Your task to perform on an android device: turn off notifications settings in the gmail app Image 0: 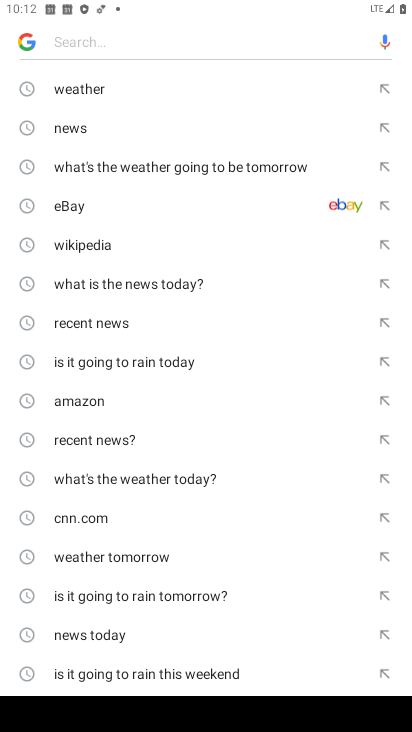
Step 0: drag from (223, 582) to (283, 69)
Your task to perform on an android device: turn off notifications settings in the gmail app Image 1: 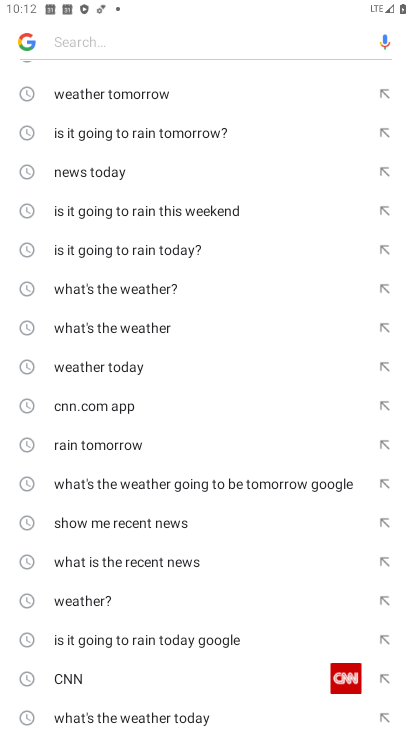
Step 1: drag from (275, 634) to (298, 238)
Your task to perform on an android device: turn off notifications settings in the gmail app Image 2: 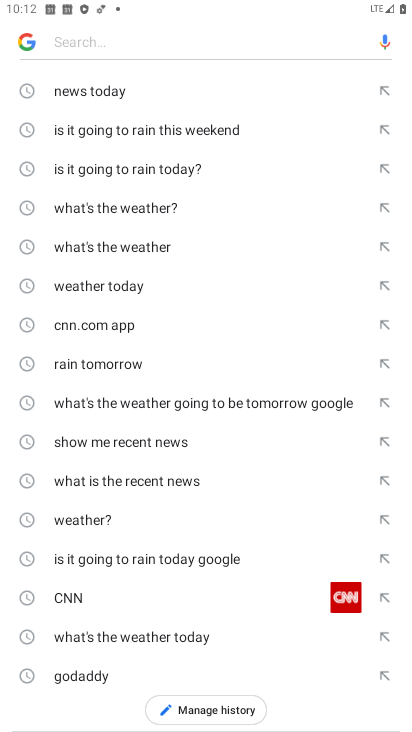
Step 2: press home button
Your task to perform on an android device: turn off notifications settings in the gmail app Image 3: 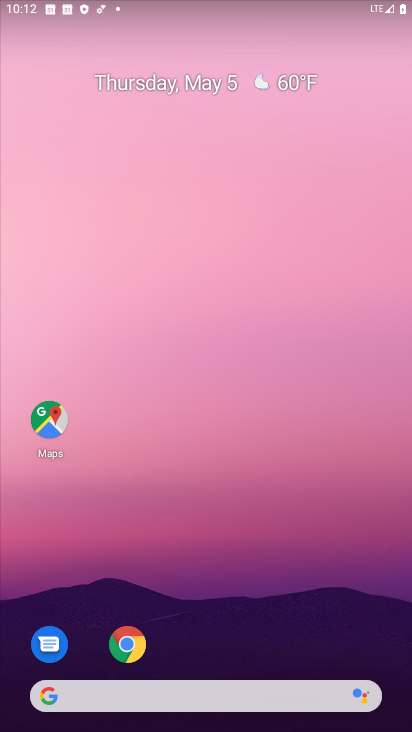
Step 3: drag from (311, 600) to (395, 27)
Your task to perform on an android device: turn off notifications settings in the gmail app Image 4: 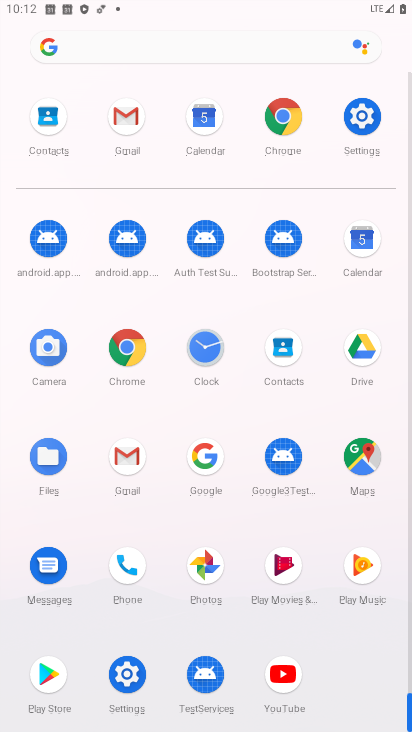
Step 4: click (111, 453)
Your task to perform on an android device: turn off notifications settings in the gmail app Image 5: 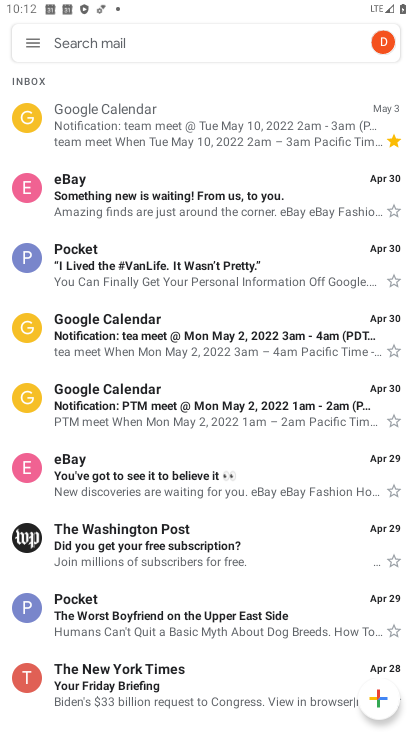
Step 5: click (38, 55)
Your task to perform on an android device: turn off notifications settings in the gmail app Image 6: 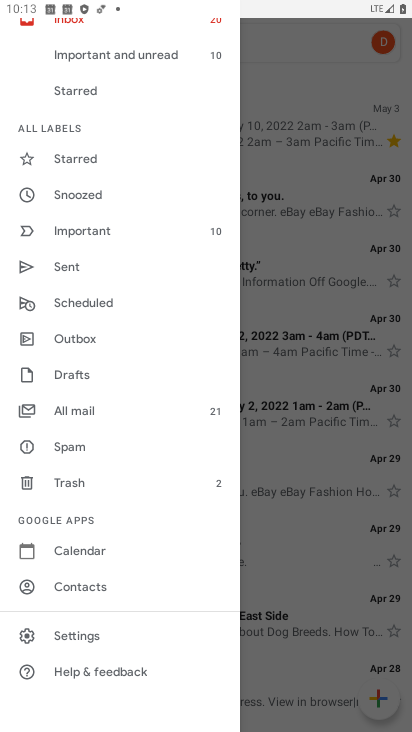
Step 6: click (38, 626)
Your task to perform on an android device: turn off notifications settings in the gmail app Image 7: 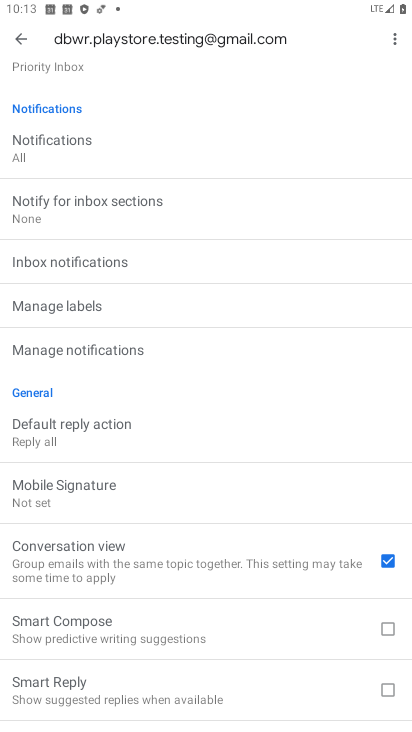
Step 7: drag from (225, 685) to (201, 415)
Your task to perform on an android device: turn off notifications settings in the gmail app Image 8: 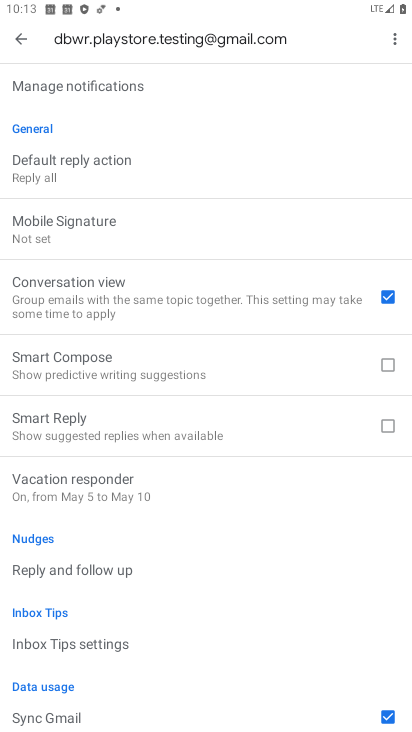
Step 8: drag from (225, 608) to (255, 318)
Your task to perform on an android device: turn off notifications settings in the gmail app Image 9: 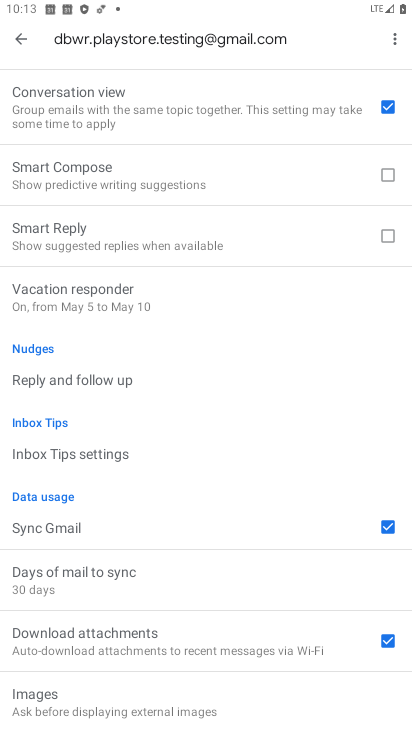
Step 9: drag from (253, 603) to (234, 265)
Your task to perform on an android device: turn off notifications settings in the gmail app Image 10: 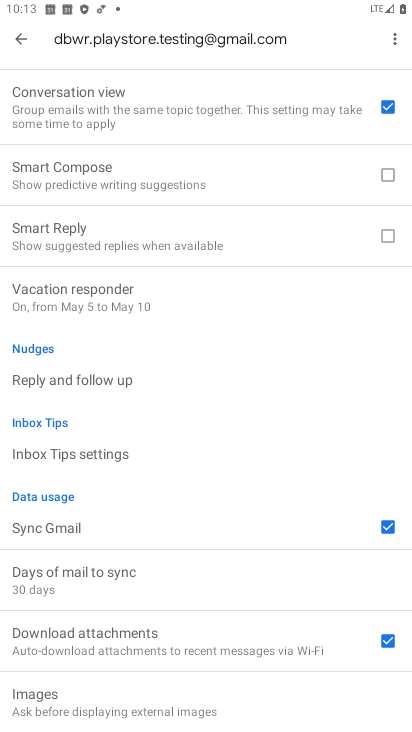
Step 10: drag from (189, 659) to (198, 336)
Your task to perform on an android device: turn off notifications settings in the gmail app Image 11: 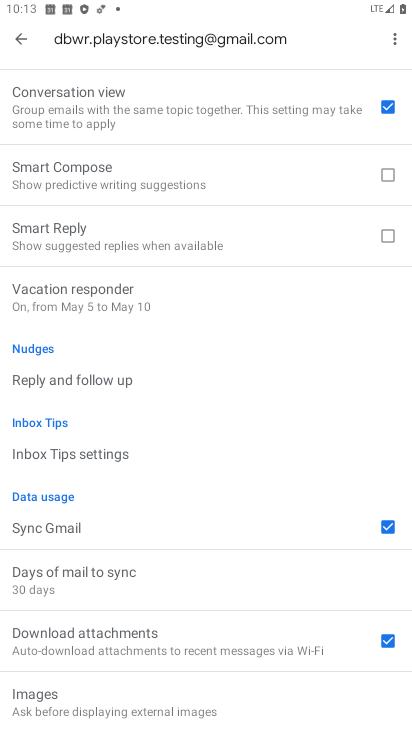
Step 11: drag from (181, 689) to (177, 541)
Your task to perform on an android device: turn off notifications settings in the gmail app Image 12: 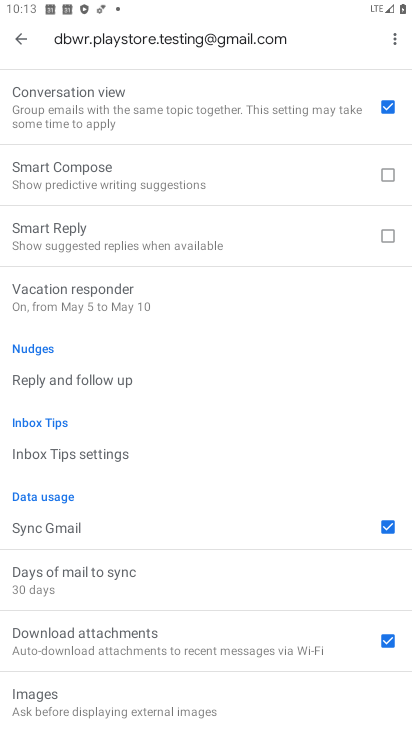
Step 12: drag from (181, 694) to (185, 434)
Your task to perform on an android device: turn off notifications settings in the gmail app Image 13: 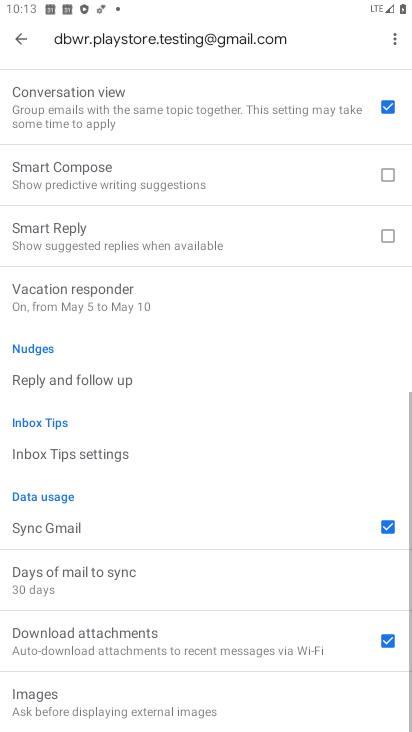
Step 13: drag from (146, 671) to (119, 422)
Your task to perform on an android device: turn off notifications settings in the gmail app Image 14: 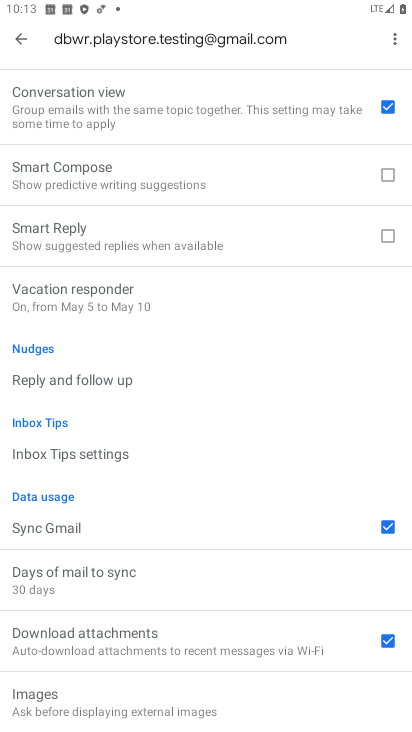
Step 14: drag from (169, 445) to (162, 667)
Your task to perform on an android device: turn off notifications settings in the gmail app Image 15: 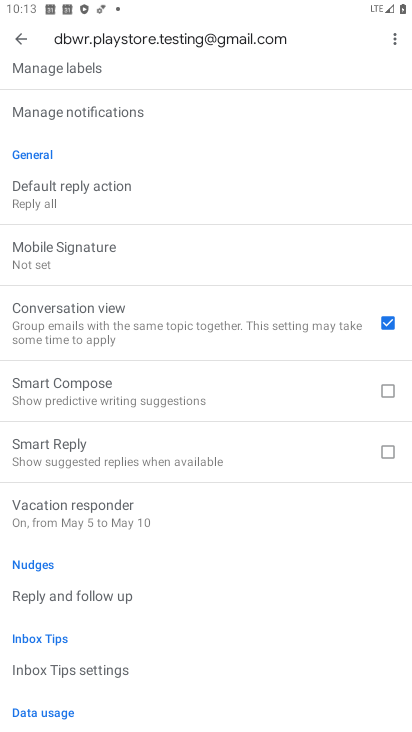
Step 15: drag from (171, 566) to (258, 173)
Your task to perform on an android device: turn off notifications settings in the gmail app Image 16: 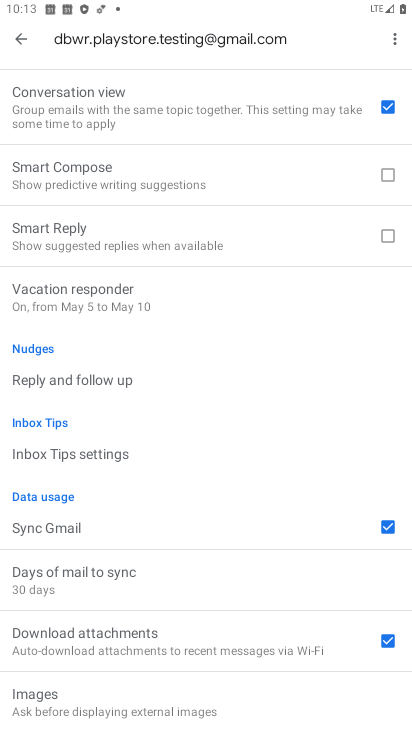
Step 16: drag from (133, 693) to (148, 452)
Your task to perform on an android device: turn off notifications settings in the gmail app Image 17: 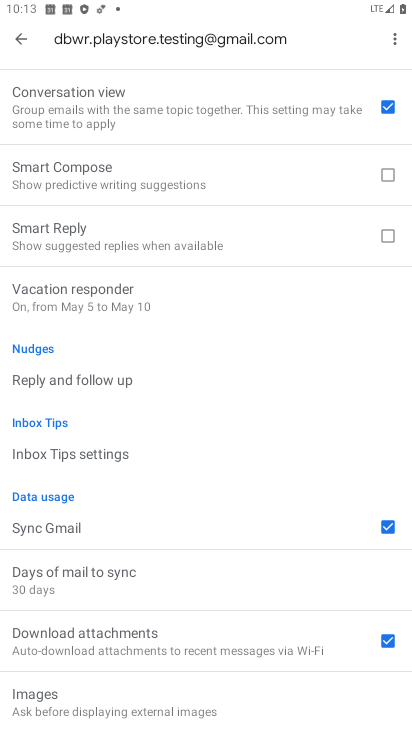
Step 17: drag from (151, 297) to (172, 576)
Your task to perform on an android device: turn off notifications settings in the gmail app Image 18: 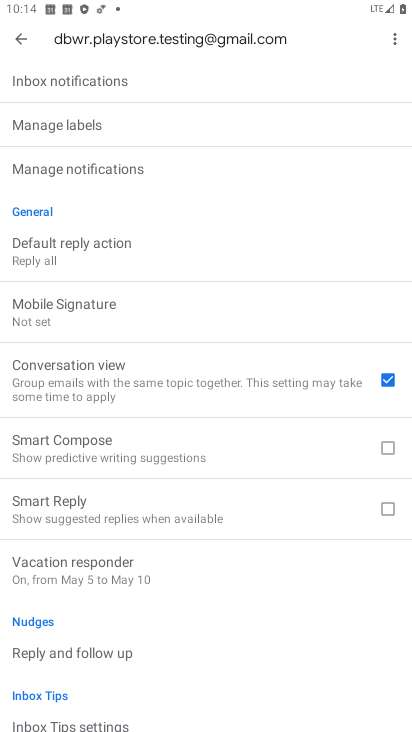
Step 18: drag from (190, 629) to (204, 153)
Your task to perform on an android device: turn off notifications settings in the gmail app Image 19: 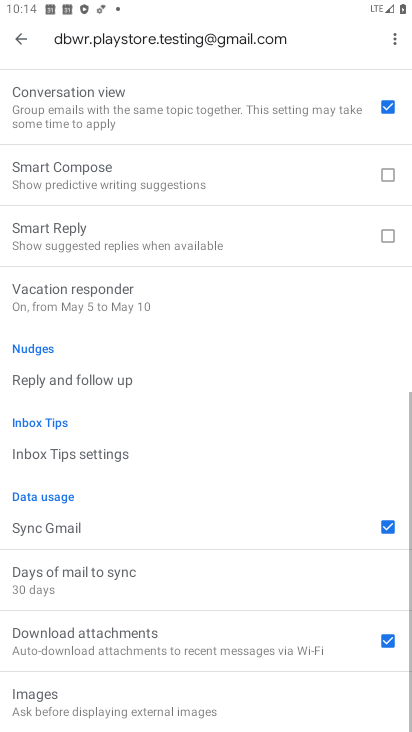
Step 19: drag from (193, 187) to (216, 728)
Your task to perform on an android device: turn off notifications settings in the gmail app Image 20: 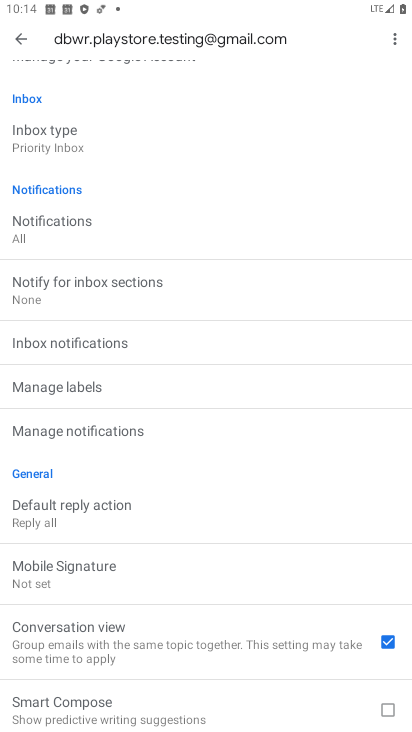
Step 20: drag from (167, 329) to (185, 662)
Your task to perform on an android device: turn off notifications settings in the gmail app Image 21: 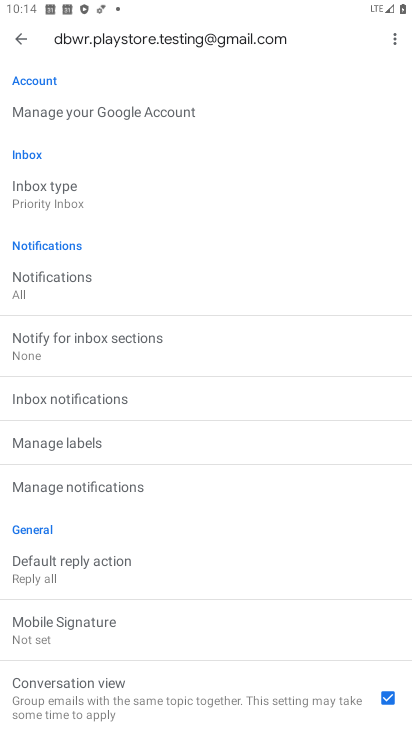
Step 21: drag from (131, 632) to (284, 110)
Your task to perform on an android device: turn off notifications settings in the gmail app Image 22: 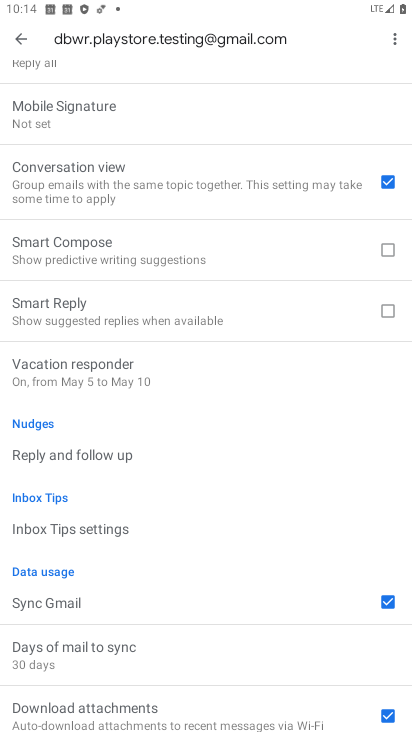
Step 22: drag from (172, 610) to (265, 163)
Your task to perform on an android device: turn off notifications settings in the gmail app Image 23: 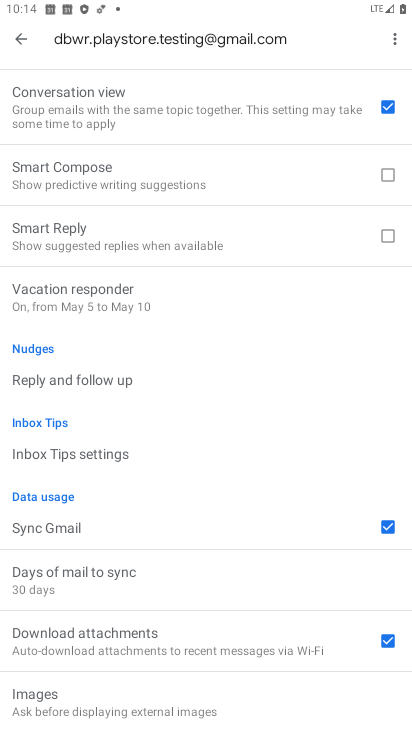
Step 23: drag from (110, 115) to (268, 683)
Your task to perform on an android device: turn off notifications settings in the gmail app Image 24: 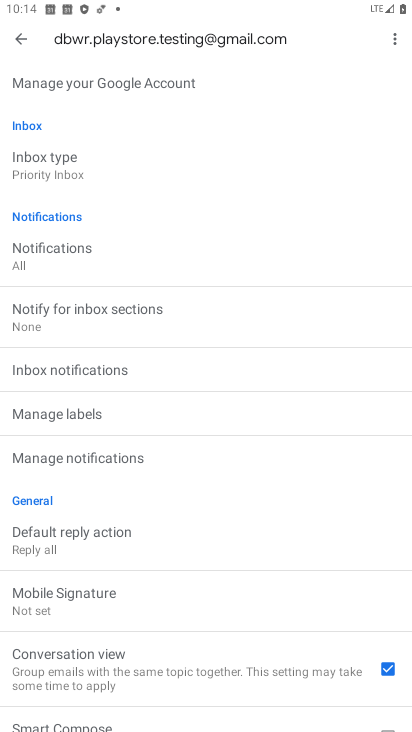
Step 24: click (131, 466)
Your task to perform on an android device: turn off notifications settings in the gmail app Image 25: 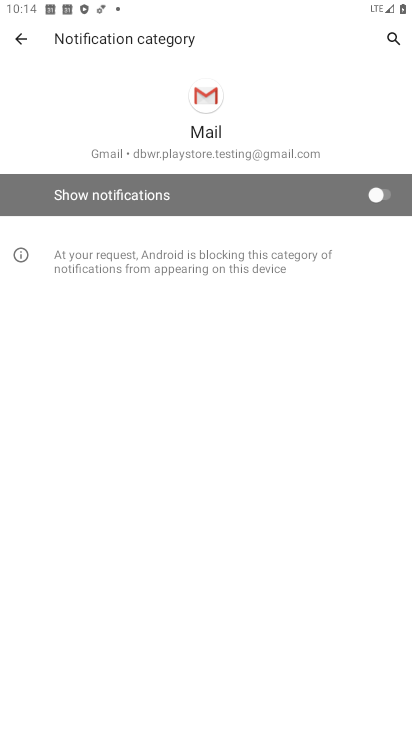
Step 25: task complete